Your task to perform on an android device: open the mobile data screen to see how much data has been used Image 0: 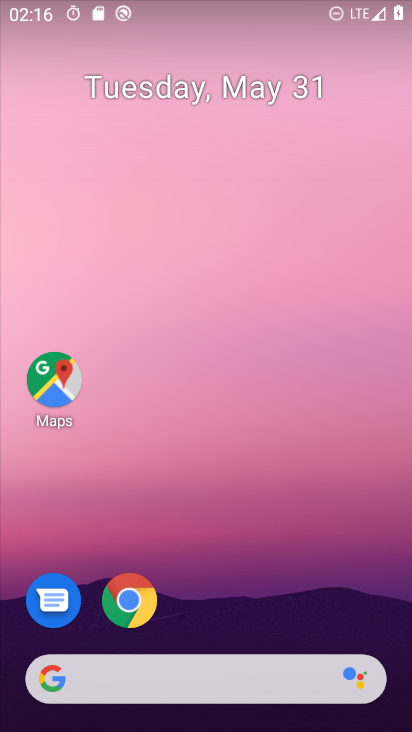
Step 0: drag from (215, 701) to (212, 93)
Your task to perform on an android device: open the mobile data screen to see how much data has been used Image 1: 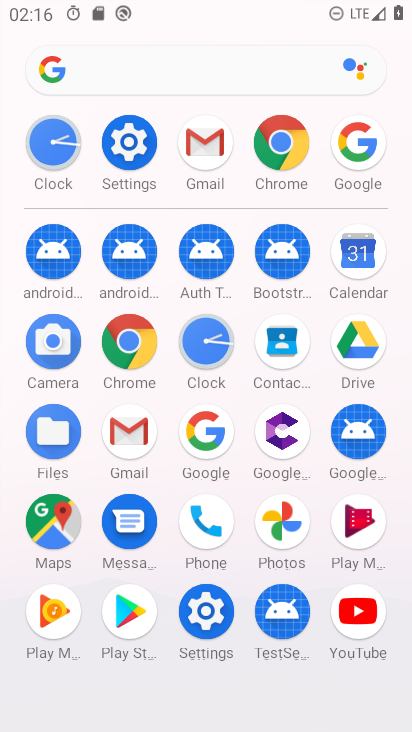
Step 1: click (128, 146)
Your task to perform on an android device: open the mobile data screen to see how much data has been used Image 2: 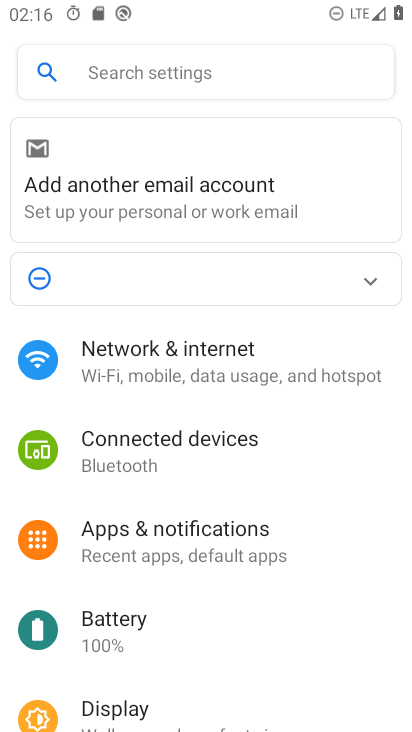
Step 2: click (151, 367)
Your task to perform on an android device: open the mobile data screen to see how much data has been used Image 3: 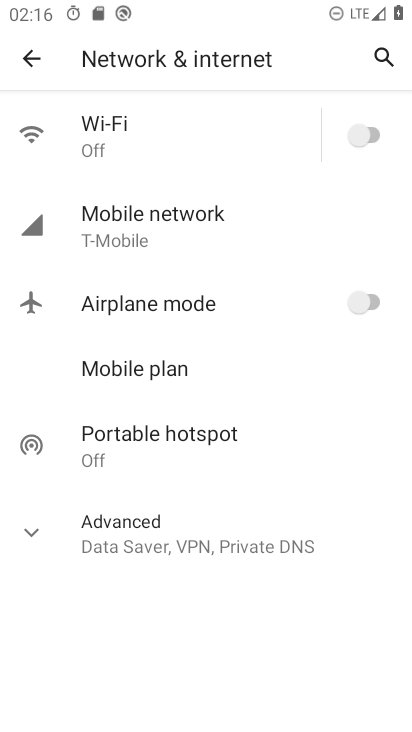
Step 3: click (103, 227)
Your task to perform on an android device: open the mobile data screen to see how much data has been used Image 4: 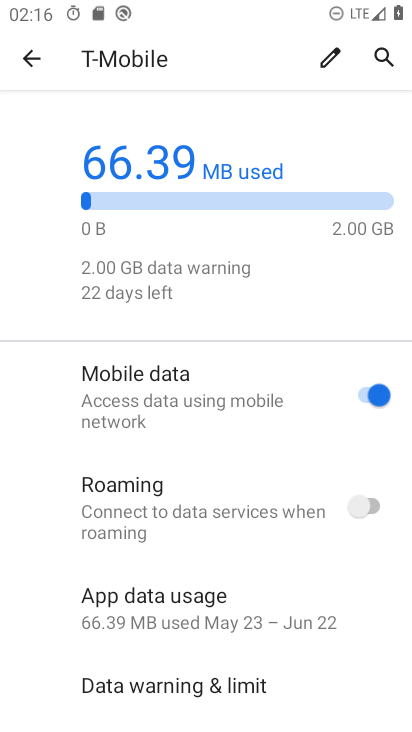
Step 4: click (151, 603)
Your task to perform on an android device: open the mobile data screen to see how much data has been used Image 5: 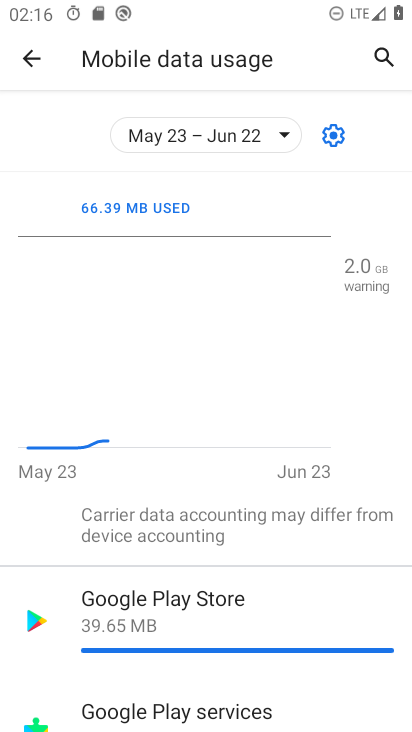
Step 5: task complete